Your task to perform on an android device: change timer sound Image 0: 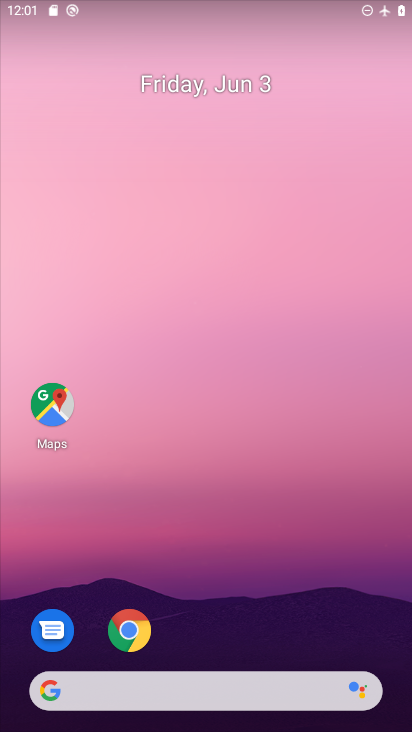
Step 0: drag from (244, 663) to (183, 106)
Your task to perform on an android device: change timer sound Image 1: 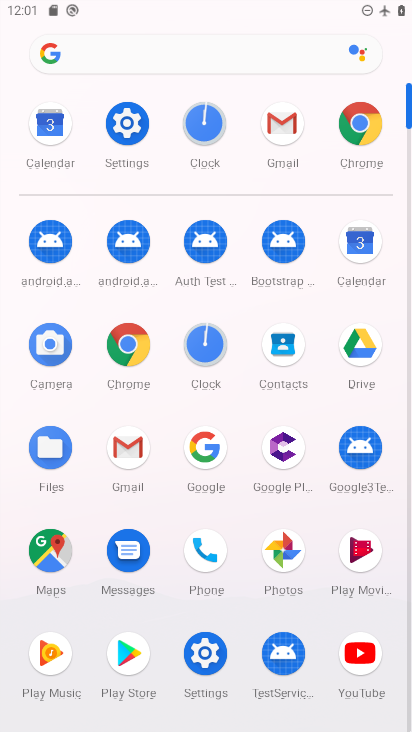
Step 1: click (211, 115)
Your task to perform on an android device: change timer sound Image 2: 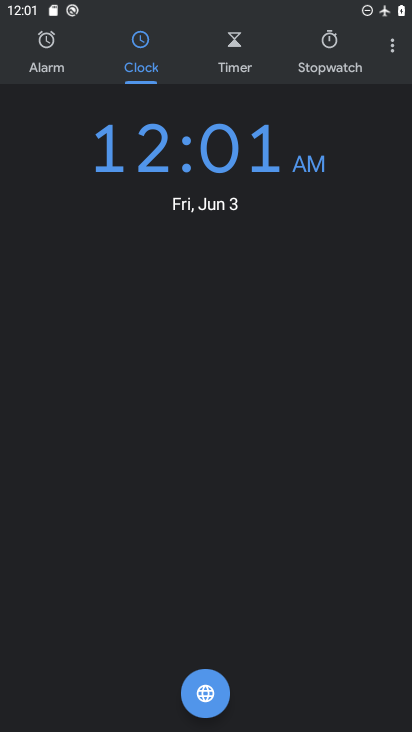
Step 2: click (390, 37)
Your task to perform on an android device: change timer sound Image 3: 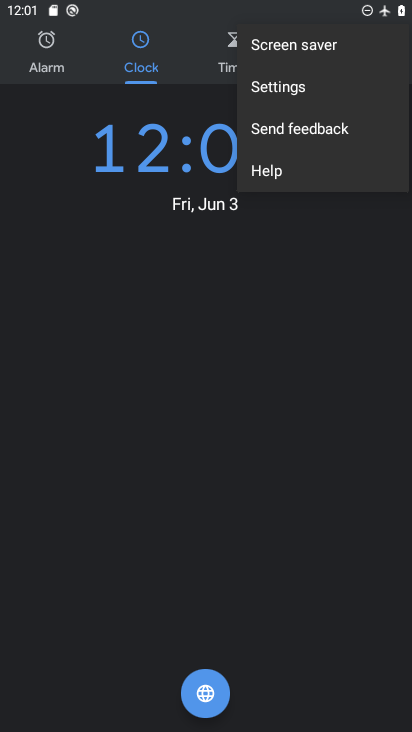
Step 3: click (341, 97)
Your task to perform on an android device: change timer sound Image 4: 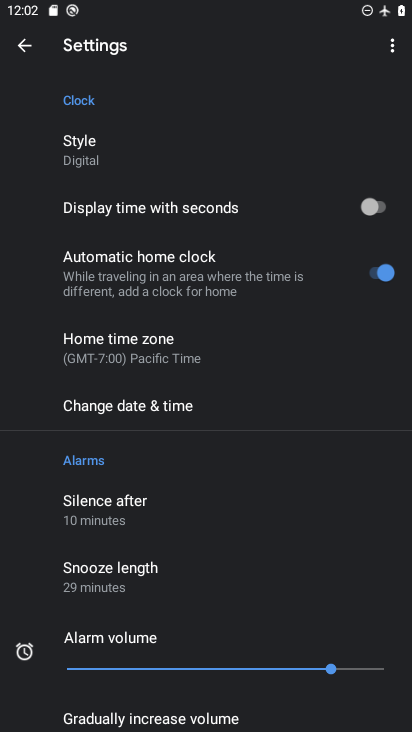
Step 4: drag from (214, 545) to (194, 275)
Your task to perform on an android device: change timer sound Image 5: 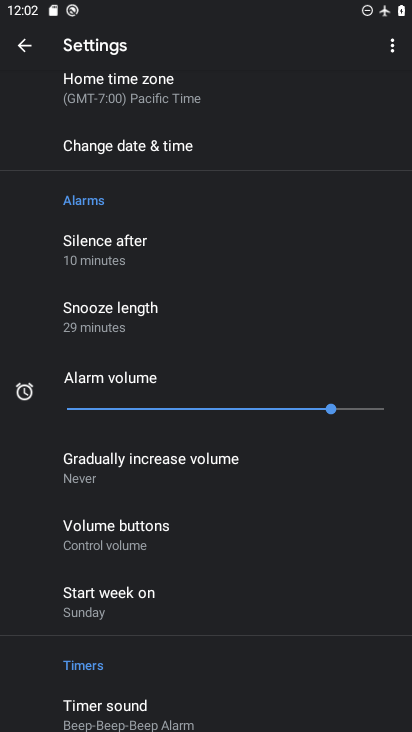
Step 5: drag from (196, 579) to (166, 235)
Your task to perform on an android device: change timer sound Image 6: 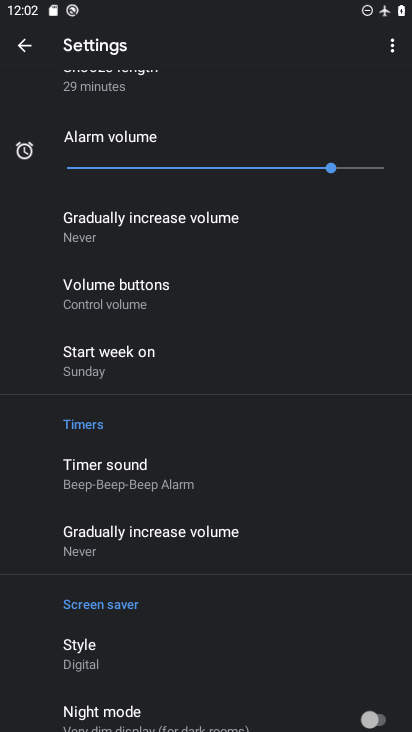
Step 6: click (186, 482)
Your task to perform on an android device: change timer sound Image 7: 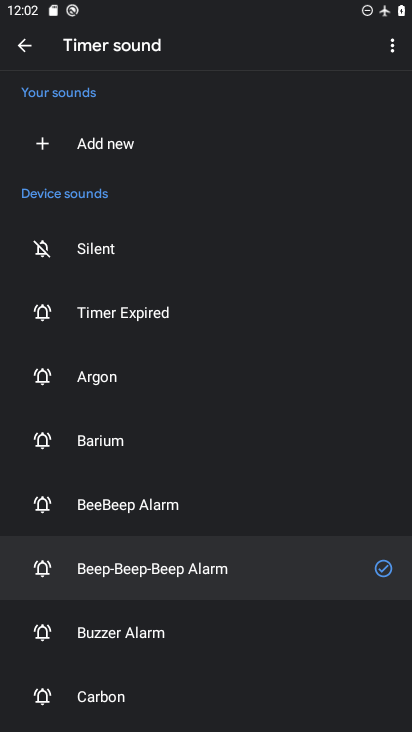
Step 7: click (186, 482)
Your task to perform on an android device: change timer sound Image 8: 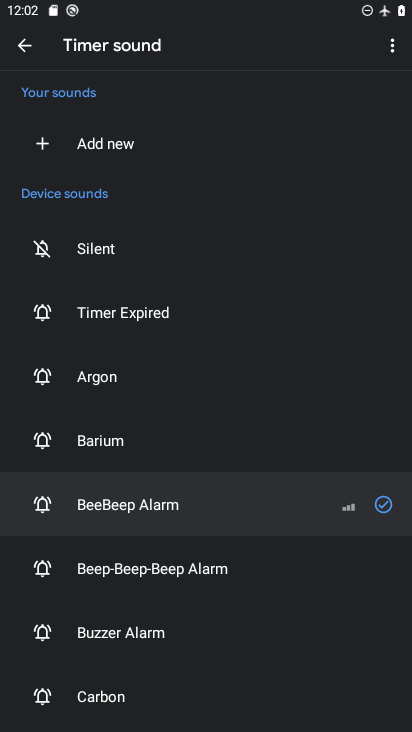
Step 8: task complete